Your task to perform on an android device: turn pop-ups off in chrome Image 0: 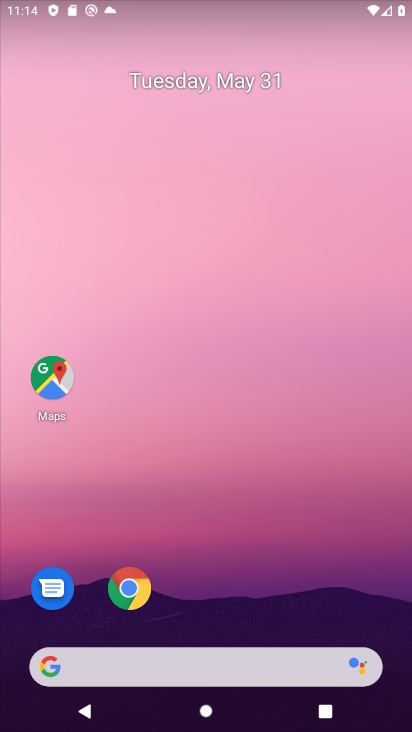
Step 0: click (124, 586)
Your task to perform on an android device: turn pop-ups off in chrome Image 1: 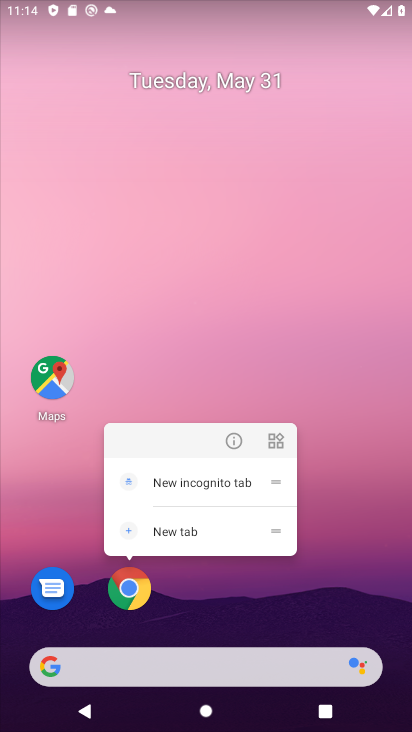
Step 1: click (129, 587)
Your task to perform on an android device: turn pop-ups off in chrome Image 2: 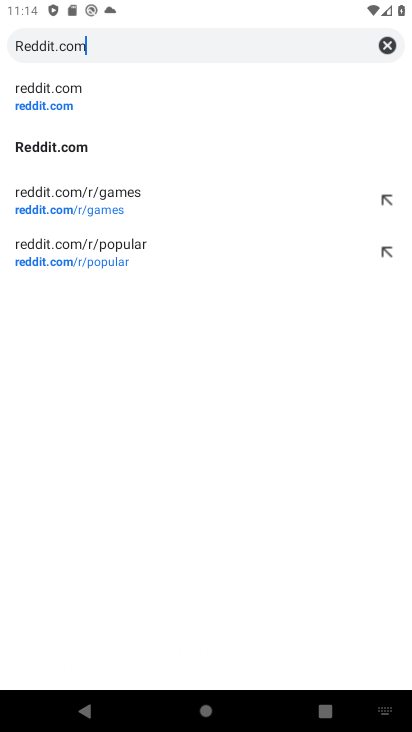
Step 2: click (93, 574)
Your task to perform on an android device: turn pop-ups off in chrome Image 3: 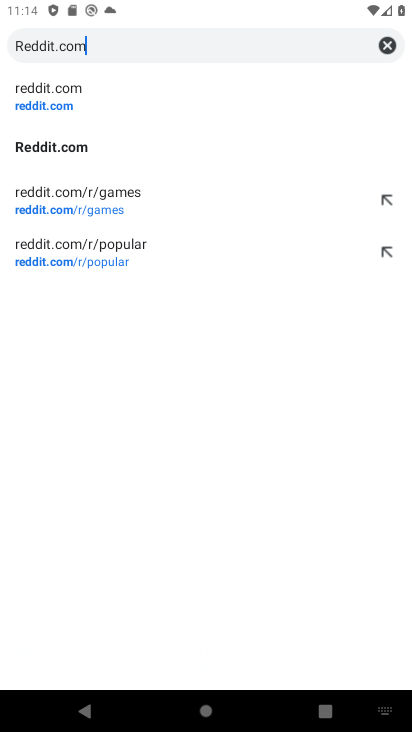
Step 3: click (384, 38)
Your task to perform on an android device: turn pop-ups off in chrome Image 4: 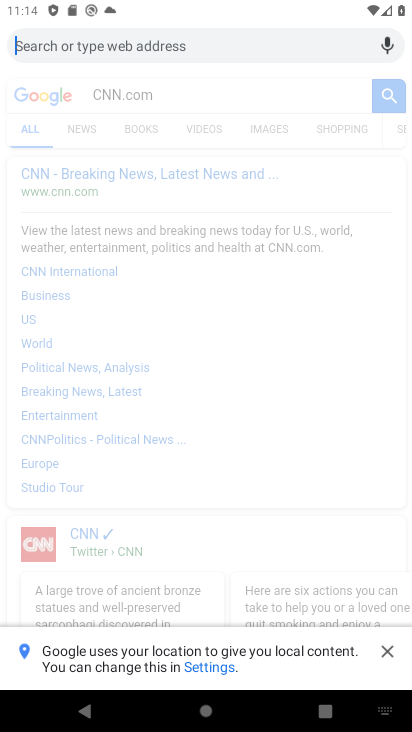
Step 4: click (290, 306)
Your task to perform on an android device: turn pop-ups off in chrome Image 5: 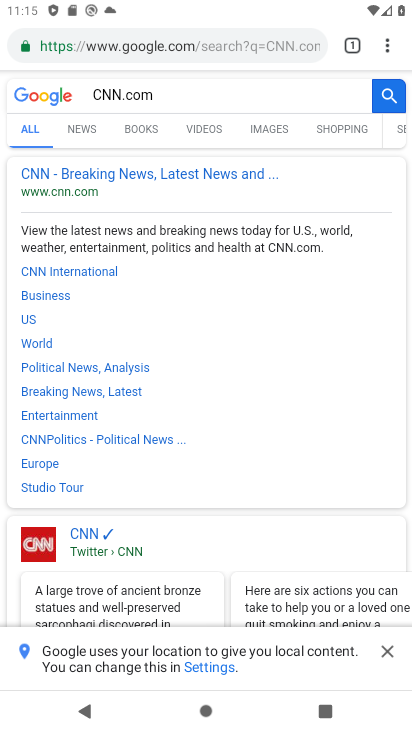
Step 5: click (239, 80)
Your task to perform on an android device: turn pop-ups off in chrome Image 6: 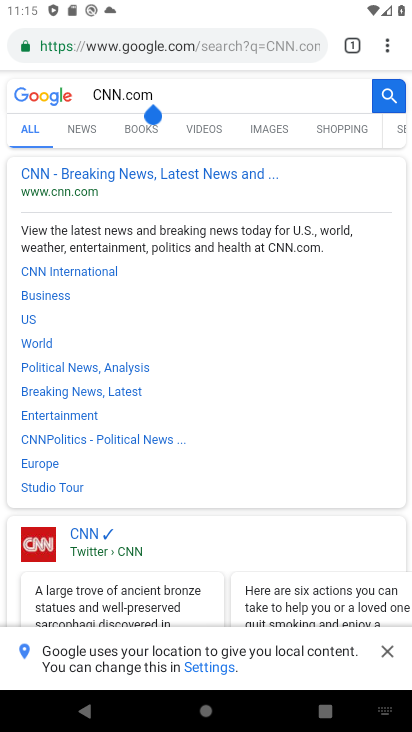
Step 6: click (380, 35)
Your task to perform on an android device: turn pop-ups off in chrome Image 7: 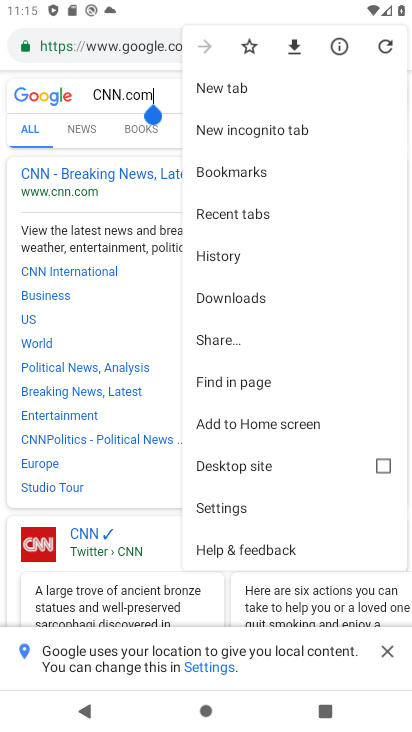
Step 7: click (238, 526)
Your task to perform on an android device: turn pop-ups off in chrome Image 8: 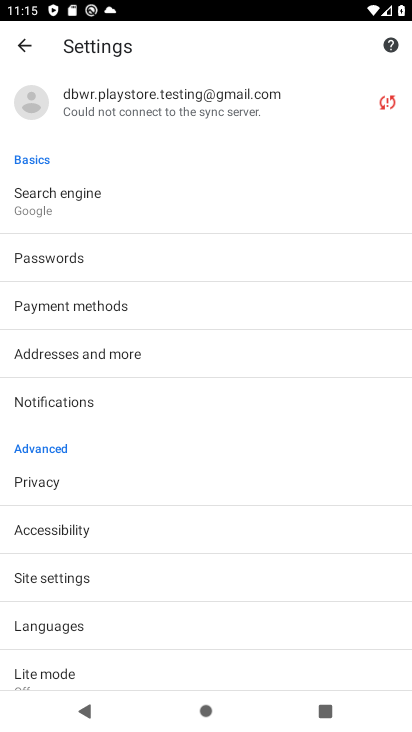
Step 8: click (66, 579)
Your task to perform on an android device: turn pop-ups off in chrome Image 9: 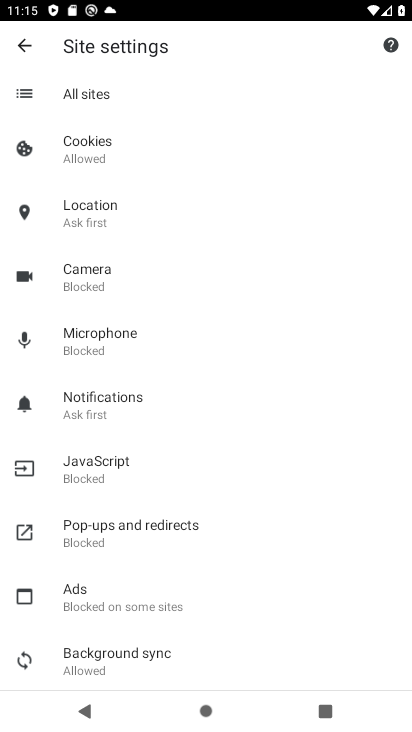
Step 9: click (197, 533)
Your task to perform on an android device: turn pop-ups off in chrome Image 10: 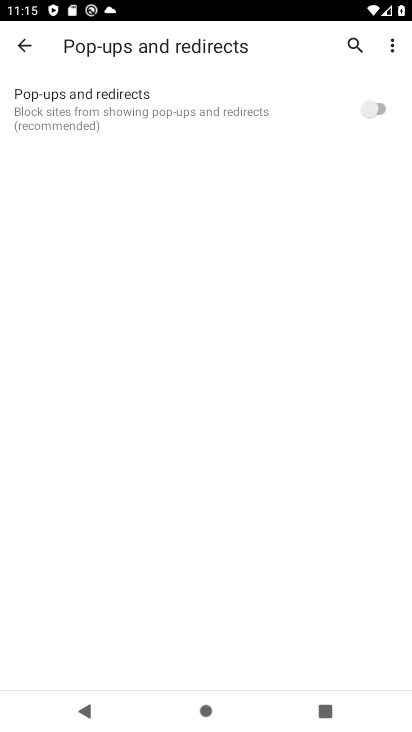
Step 10: task complete